Your task to perform on an android device: change the clock display to show seconds Image 0: 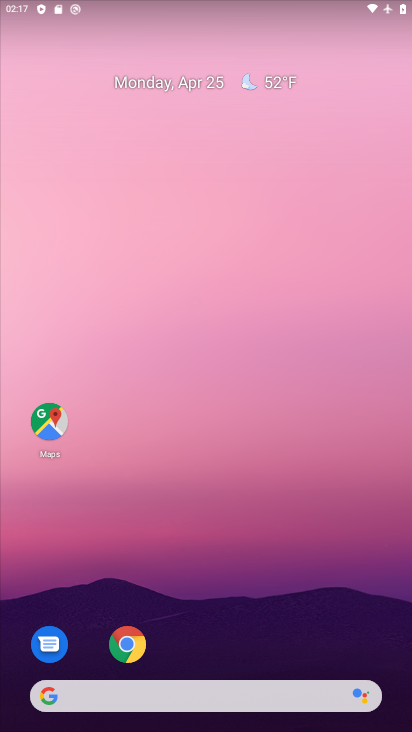
Step 0: drag from (327, 657) to (278, 237)
Your task to perform on an android device: change the clock display to show seconds Image 1: 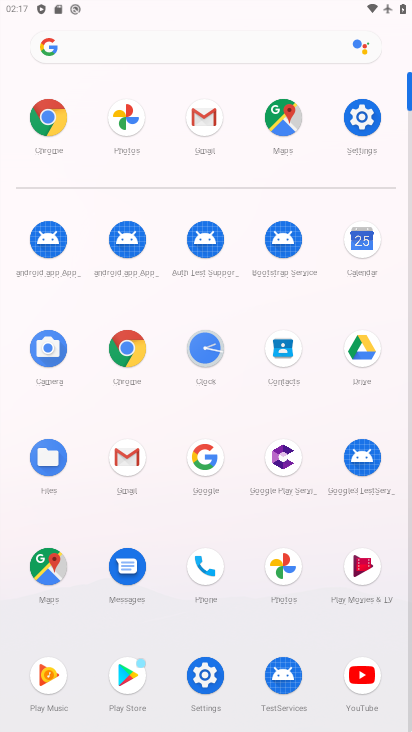
Step 1: click (358, 131)
Your task to perform on an android device: change the clock display to show seconds Image 2: 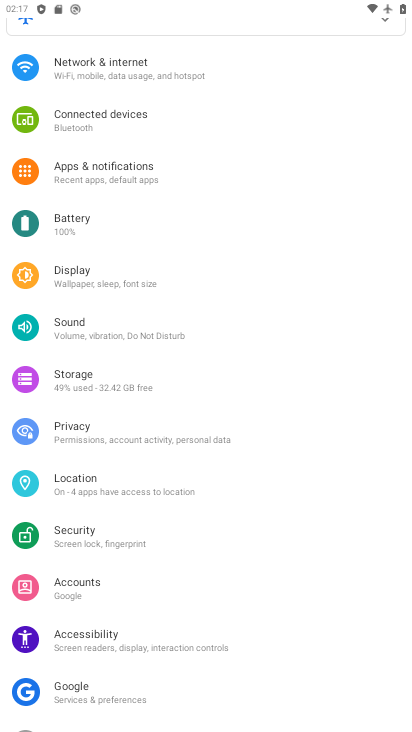
Step 2: click (352, 126)
Your task to perform on an android device: change the clock display to show seconds Image 3: 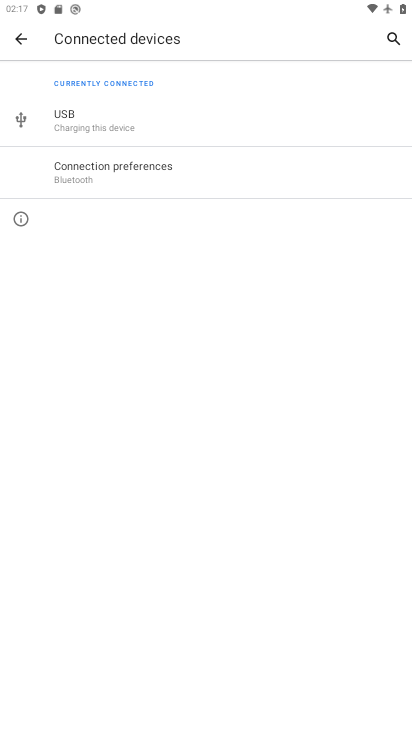
Step 3: click (25, 42)
Your task to perform on an android device: change the clock display to show seconds Image 4: 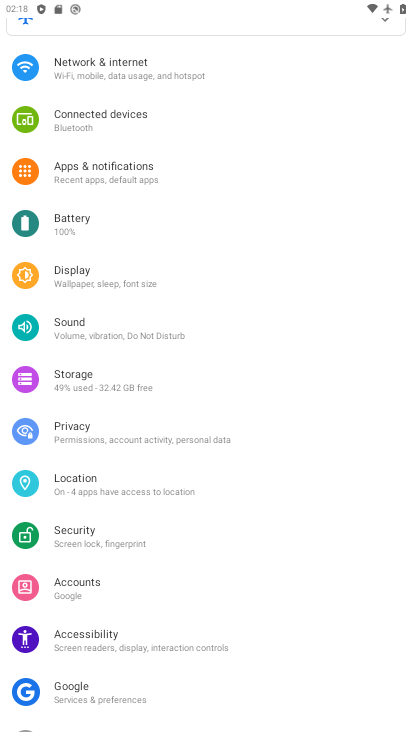
Step 4: press home button
Your task to perform on an android device: change the clock display to show seconds Image 5: 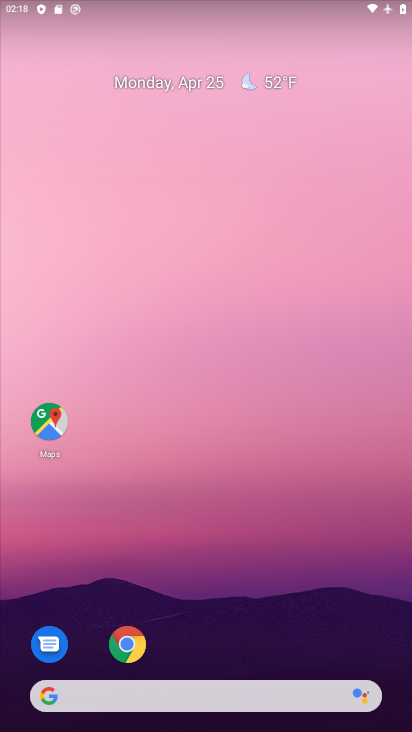
Step 5: drag from (251, 641) to (246, 19)
Your task to perform on an android device: change the clock display to show seconds Image 6: 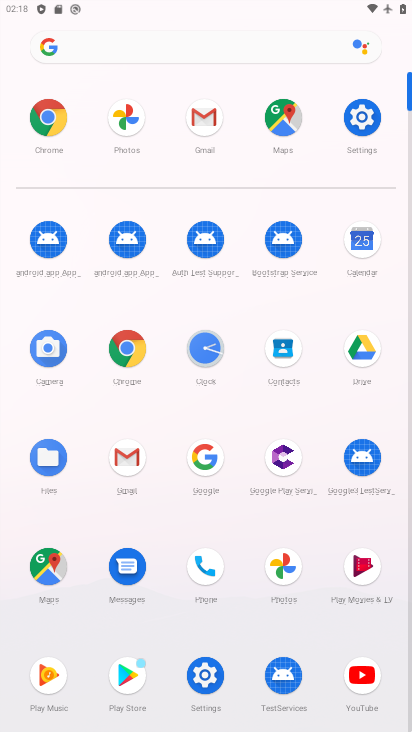
Step 6: click (201, 355)
Your task to perform on an android device: change the clock display to show seconds Image 7: 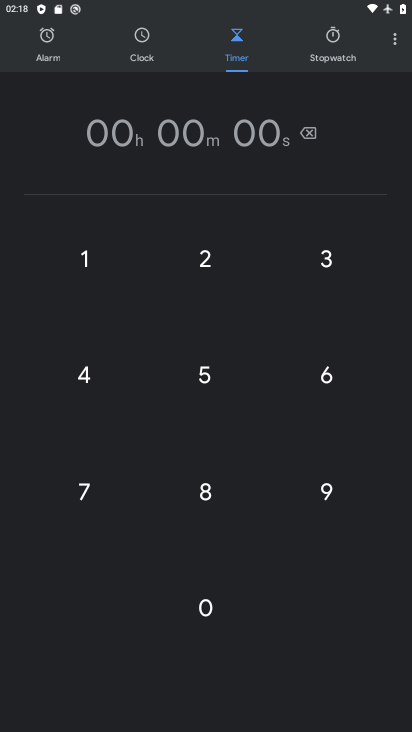
Step 7: click (393, 40)
Your task to perform on an android device: change the clock display to show seconds Image 8: 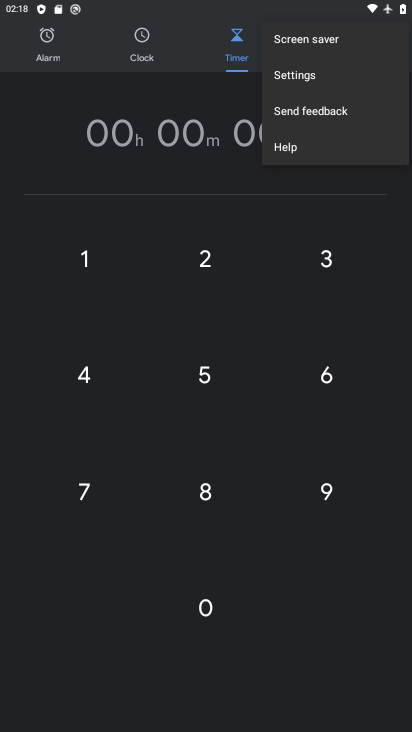
Step 8: click (333, 72)
Your task to perform on an android device: change the clock display to show seconds Image 9: 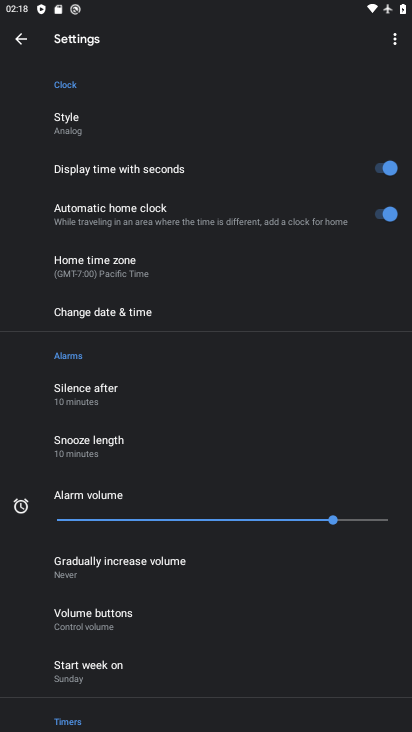
Step 9: click (233, 296)
Your task to perform on an android device: change the clock display to show seconds Image 10: 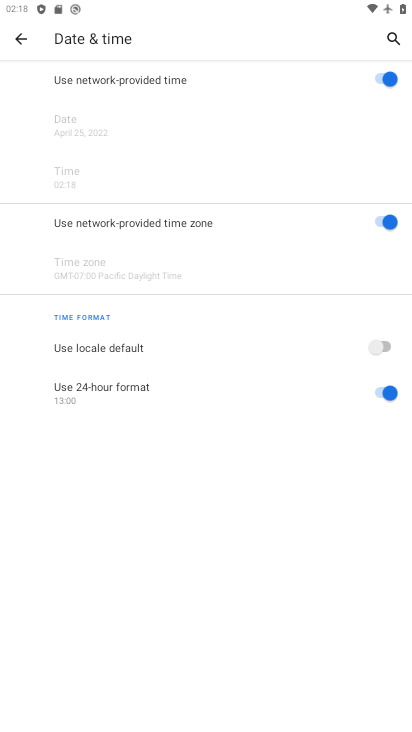
Step 10: task complete